Your task to perform on an android device: Open Google Maps Image 0: 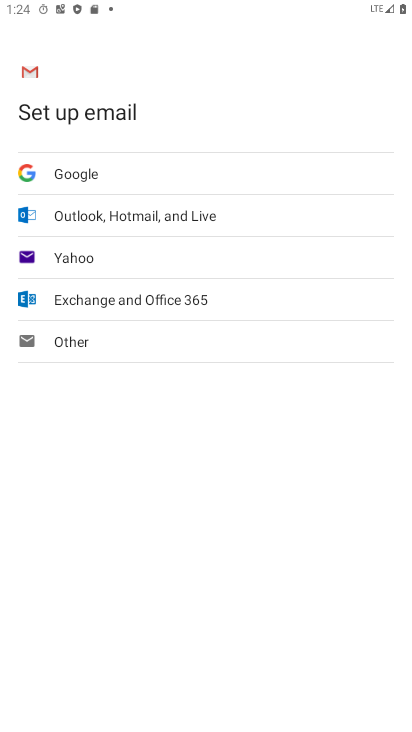
Step 0: press home button
Your task to perform on an android device: Open Google Maps Image 1: 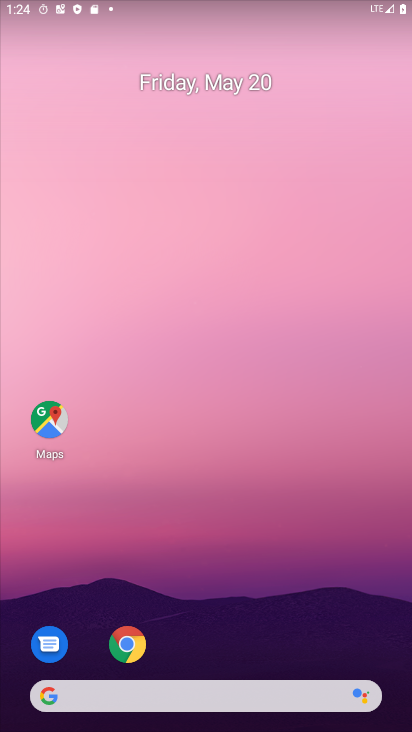
Step 1: drag from (390, 110) to (408, 19)
Your task to perform on an android device: Open Google Maps Image 2: 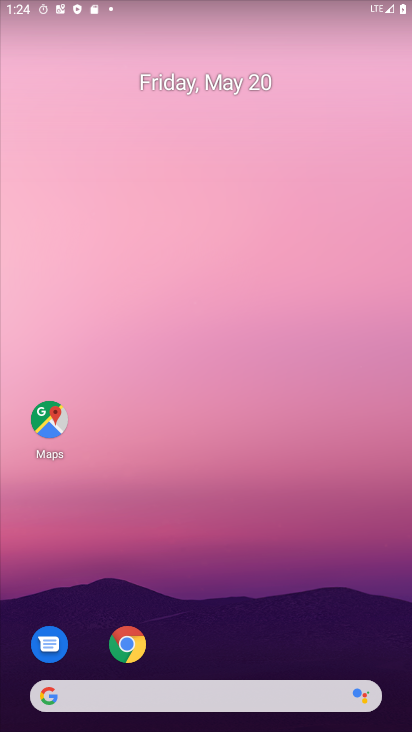
Step 2: drag from (280, 386) to (293, 0)
Your task to perform on an android device: Open Google Maps Image 3: 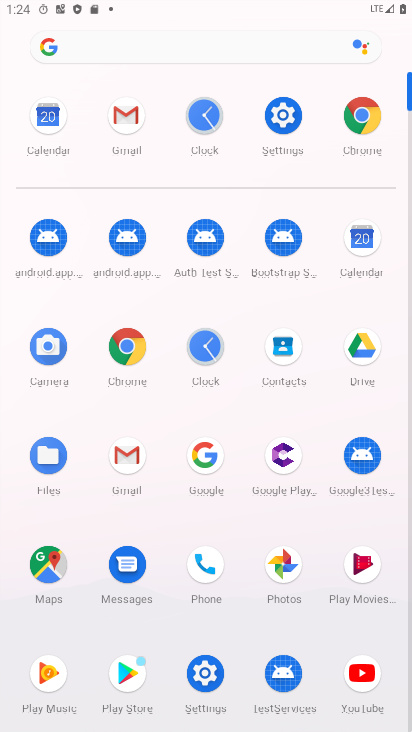
Step 3: click (44, 562)
Your task to perform on an android device: Open Google Maps Image 4: 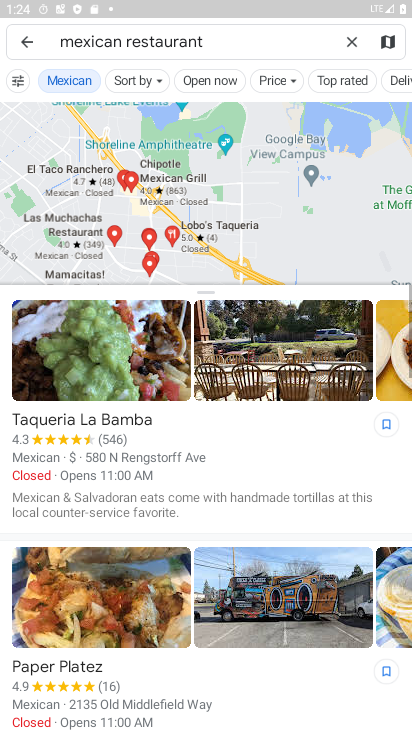
Step 4: task complete